Your task to perform on an android device: all mails in gmail Image 0: 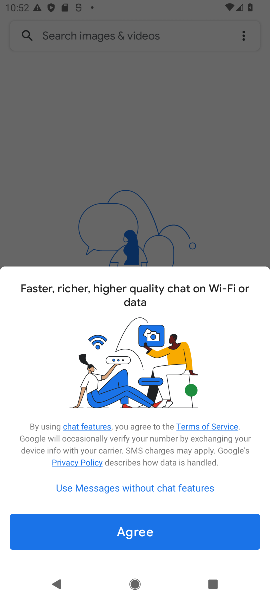
Step 0: press home button
Your task to perform on an android device: all mails in gmail Image 1: 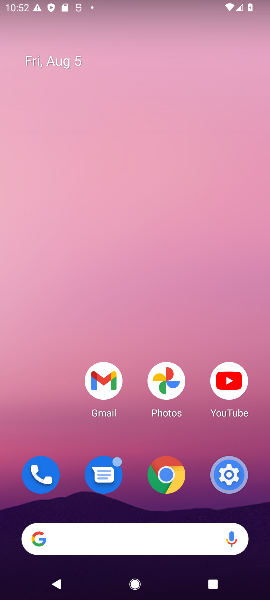
Step 1: click (108, 399)
Your task to perform on an android device: all mails in gmail Image 2: 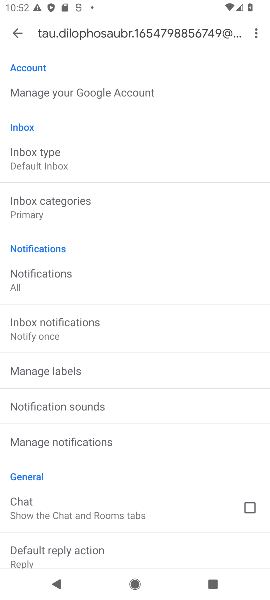
Step 2: press back button
Your task to perform on an android device: all mails in gmail Image 3: 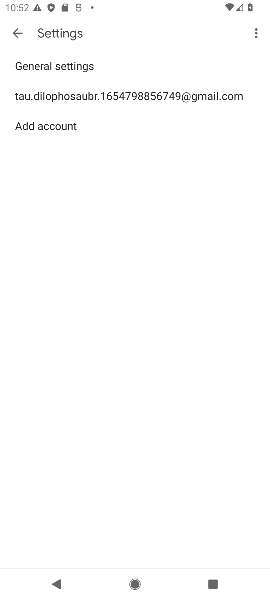
Step 3: click (12, 35)
Your task to perform on an android device: all mails in gmail Image 4: 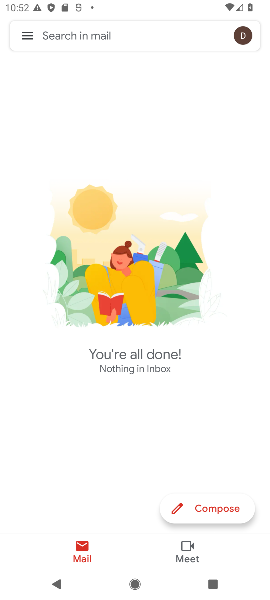
Step 4: click (25, 36)
Your task to perform on an android device: all mails in gmail Image 5: 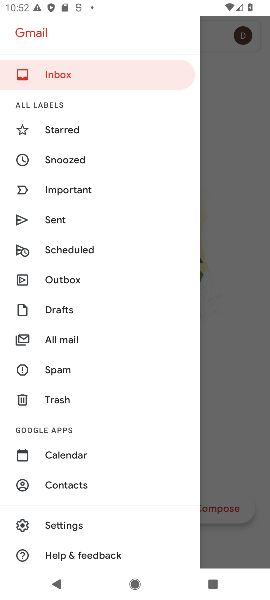
Step 5: click (61, 343)
Your task to perform on an android device: all mails in gmail Image 6: 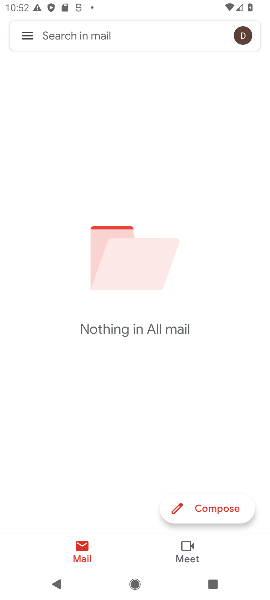
Step 6: task complete